Your task to perform on an android device: see sites visited before in the chrome app Image 0: 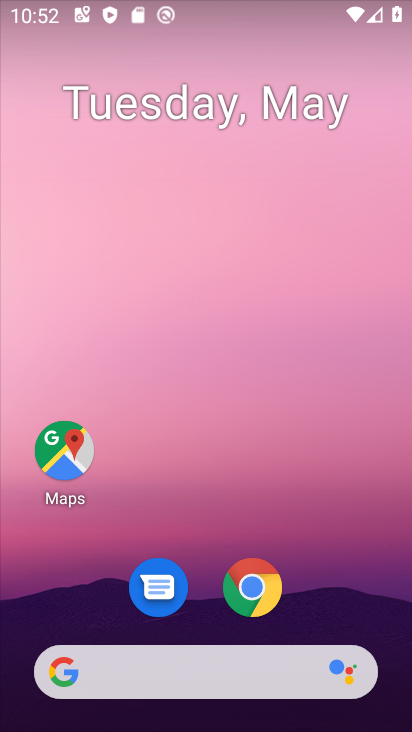
Step 0: drag from (348, 593) to (262, 30)
Your task to perform on an android device: see sites visited before in the chrome app Image 1: 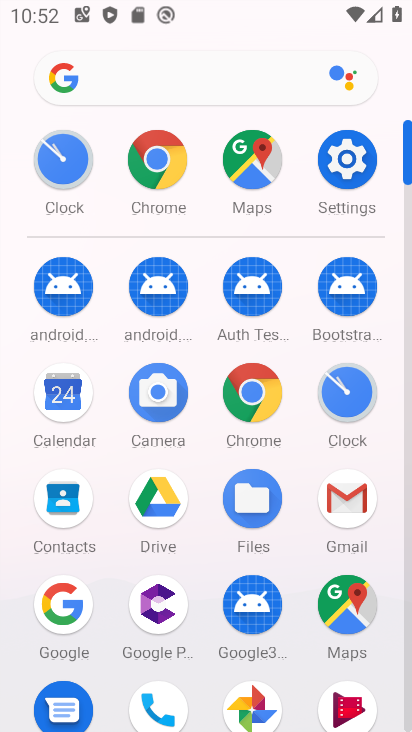
Step 1: drag from (7, 635) to (28, 262)
Your task to perform on an android device: see sites visited before in the chrome app Image 2: 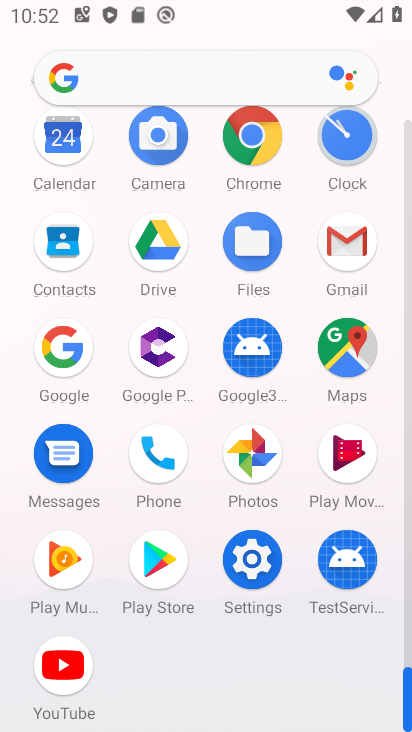
Step 2: click (250, 133)
Your task to perform on an android device: see sites visited before in the chrome app Image 3: 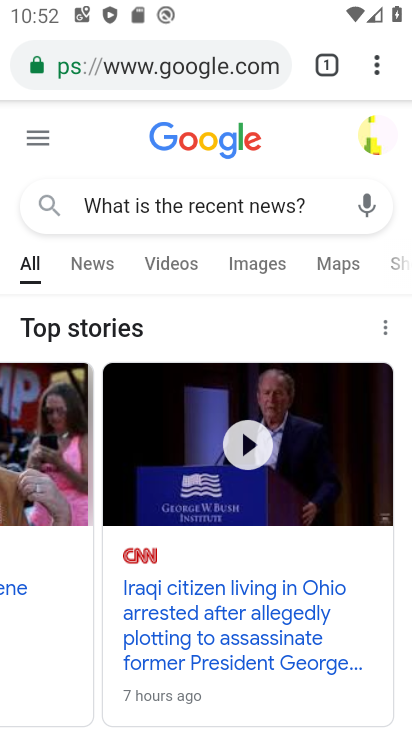
Step 3: task complete